Your task to perform on an android device: turn on javascript in the chrome app Image 0: 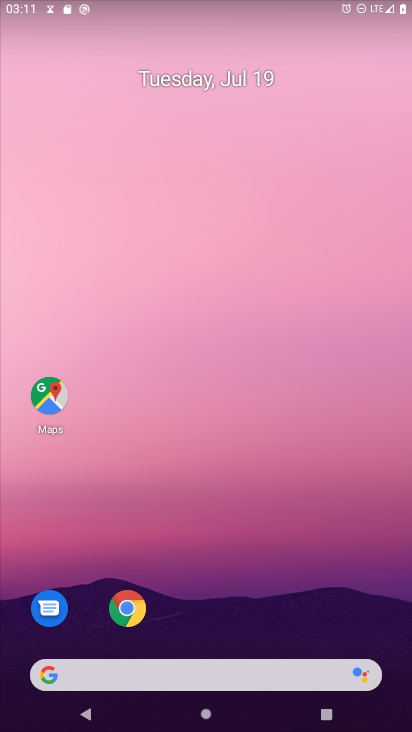
Step 0: drag from (318, 654) to (301, 84)
Your task to perform on an android device: turn on javascript in the chrome app Image 1: 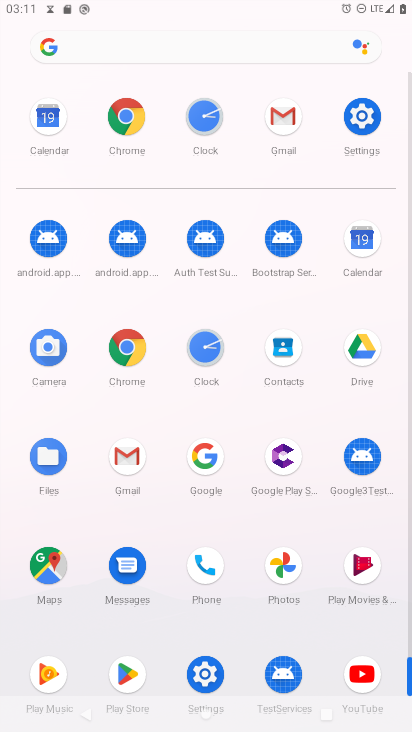
Step 1: click (133, 340)
Your task to perform on an android device: turn on javascript in the chrome app Image 2: 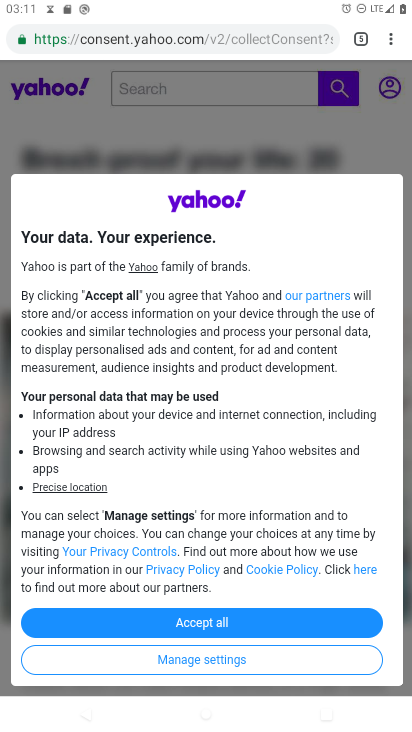
Step 2: drag from (386, 39) to (253, 444)
Your task to perform on an android device: turn on javascript in the chrome app Image 3: 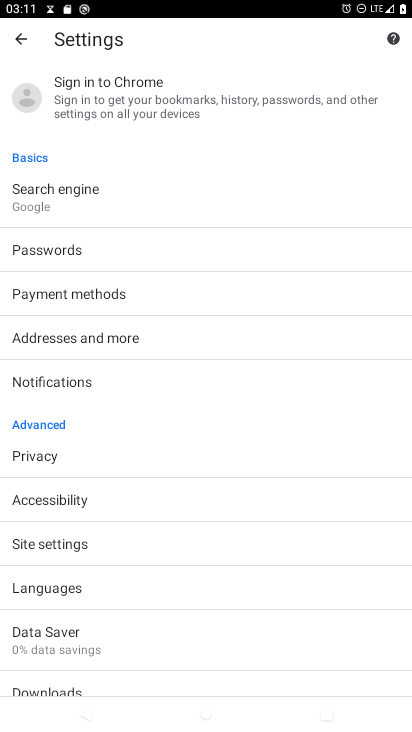
Step 3: click (98, 559)
Your task to perform on an android device: turn on javascript in the chrome app Image 4: 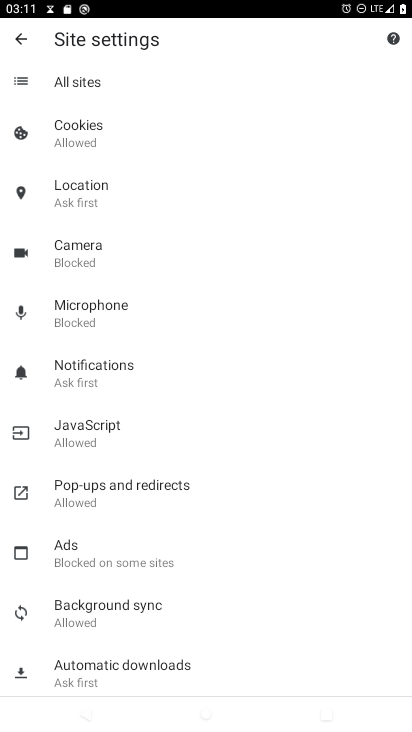
Step 4: click (98, 434)
Your task to perform on an android device: turn on javascript in the chrome app Image 5: 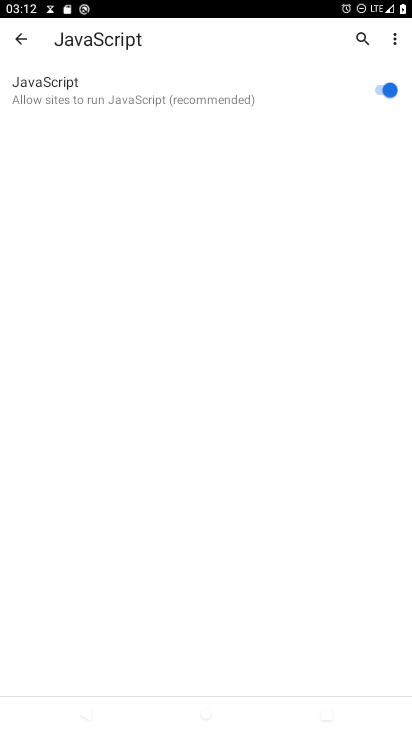
Step 5: task complete